Your task to perform on an android device: toggle airplane mode Image 0: 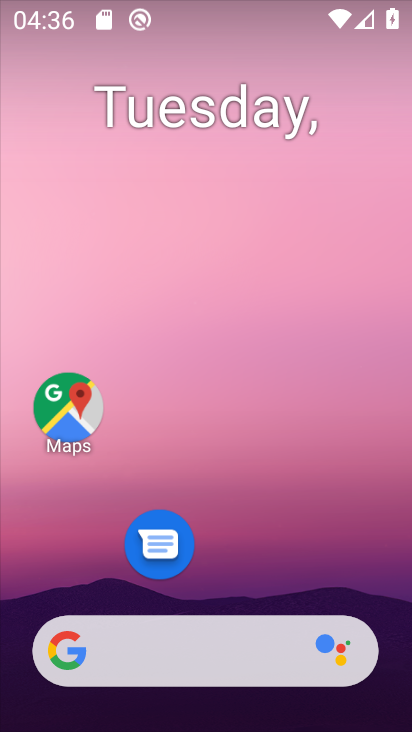
Step 0: drag from (220, 589) to (236, 346)
Your task to perform on an android device: toggle airplane mode Image 1: 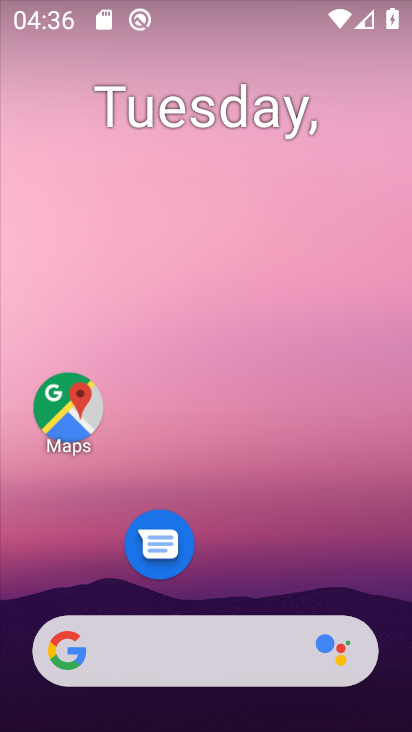
Step 1: drag from (207, 587) to (369, 16)
Your task to perform on an android device: toggle airplane mode Image 2: 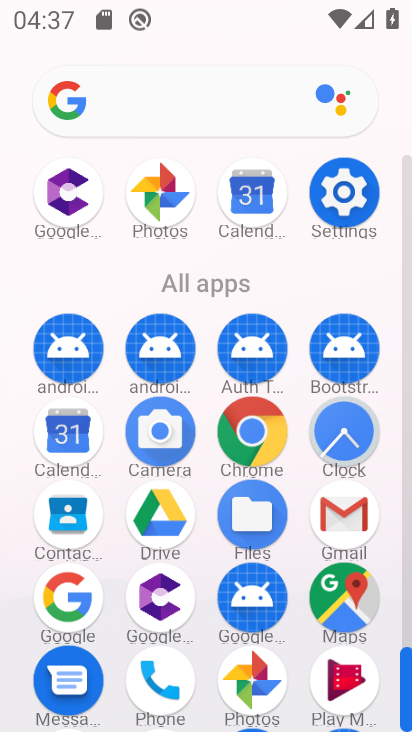
Step 2: click (345, 192)
Your task to perform on an android device: toggle airplane mode Image 3: 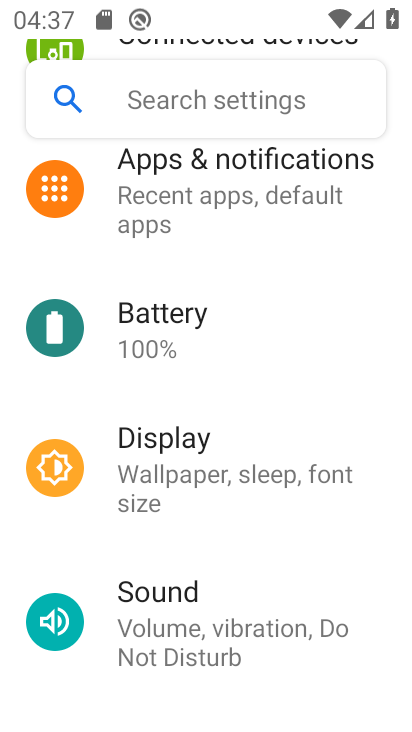
Step 3: drag from (258, 273) to (255, 486)
Your task to perform on an android device: toggle airplane mode Image 4: 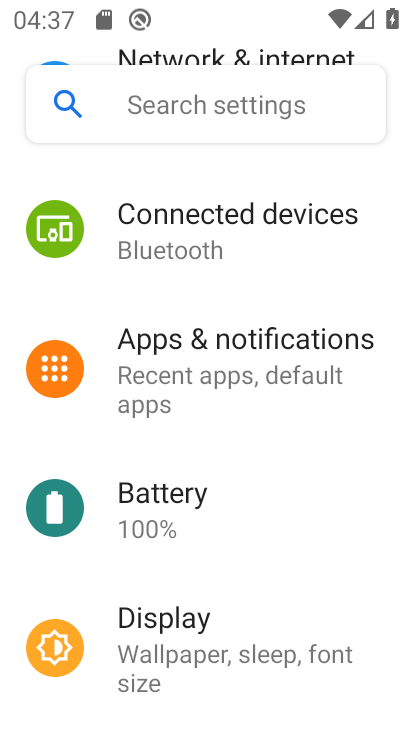
Step 4: drag from (270, 317) to (263, 565)
Your task to perform on an android device: toggle airplane mode Image 5: 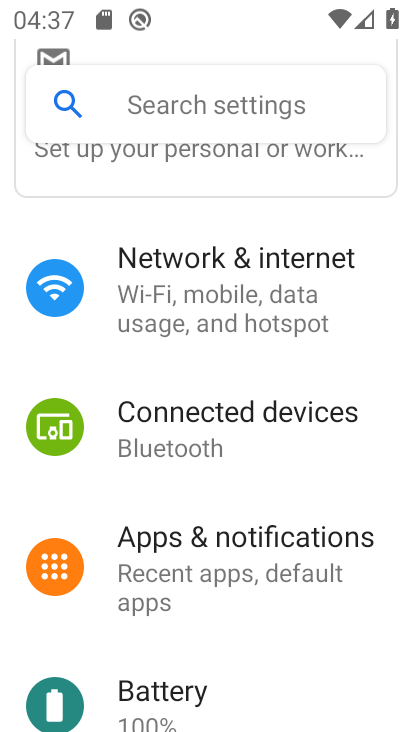
Step 5: drag from (236, 209) to (211, 543)
Your task to perform on an android device: toggle airplane mode Image 6: 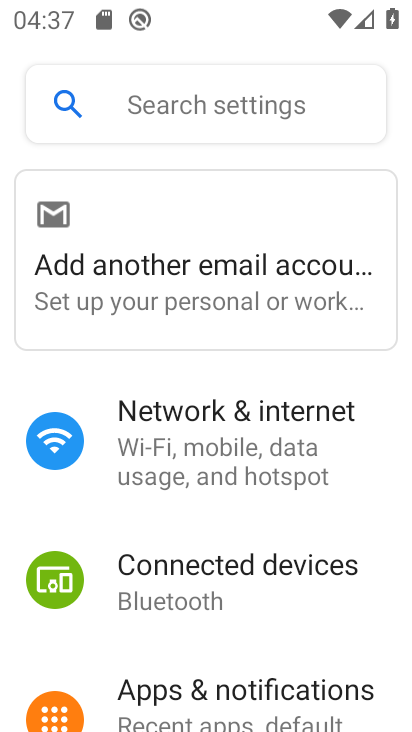
Step 6: click (234, 468)
Your task to perform on an android device: toggle airplane mode Image 7: 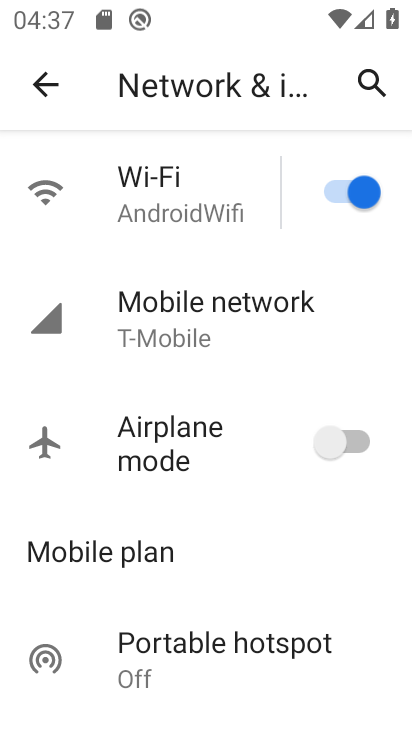
Step 7: click (359, 442)
Your task to perform on an android device: toggle airplane mode Image 8: 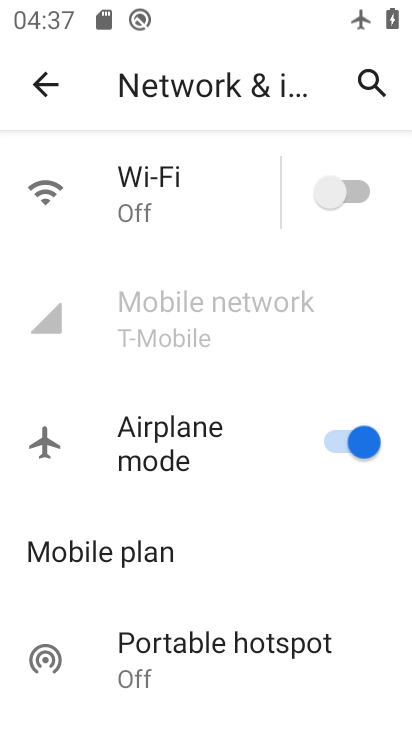
Step 8: task complete